Your task to perform on an android device: turn on airplane mode Image 0: 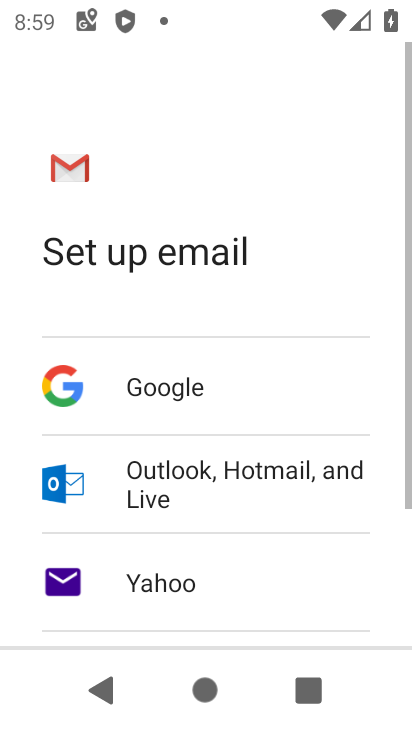
Step 0: press home button
Your task to perform on an android device: turn on airplane mode Image 1: 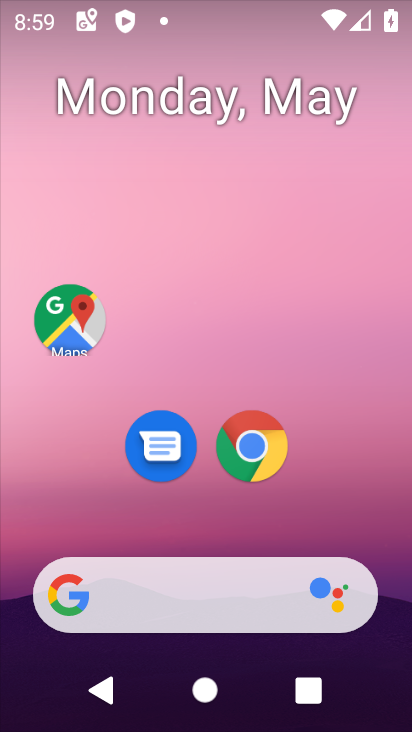
Step 1: drag from (240, 10) to (244, 455)
Your task to perform on an android device: turn on airplane mode Image 2: 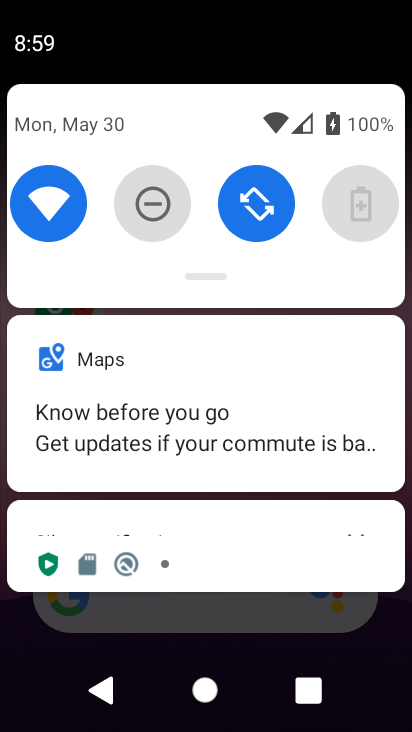
Step 2: drag from (213, 272) to (213, 729)
Your task to perform on an android device: turn on airplane mode Image 3: 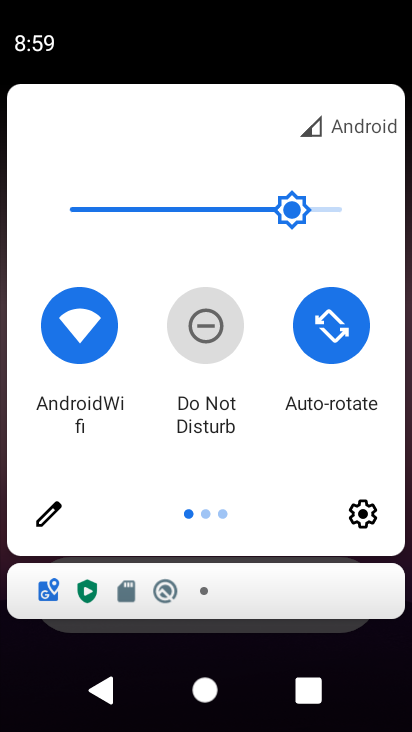
Step 3: drag from (361, 378) to (52, 389)
Your task to perform on an android device: turn on airplane mode Image 4: 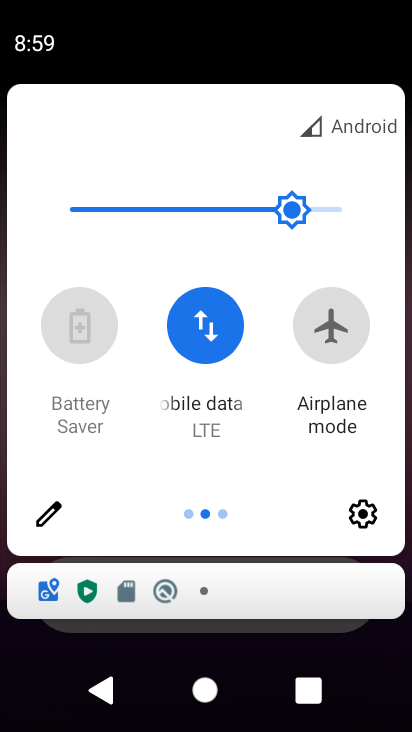
Step 4: click (329, 333)
Your task to perform on an android device: turn on airplane mode Image 5: 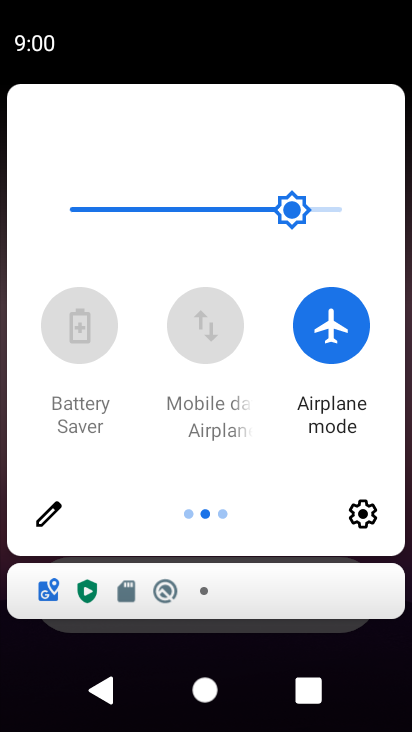
Step 5: task complete